Your task to perform on an android device: Open Chrome and go to settings Image 0: 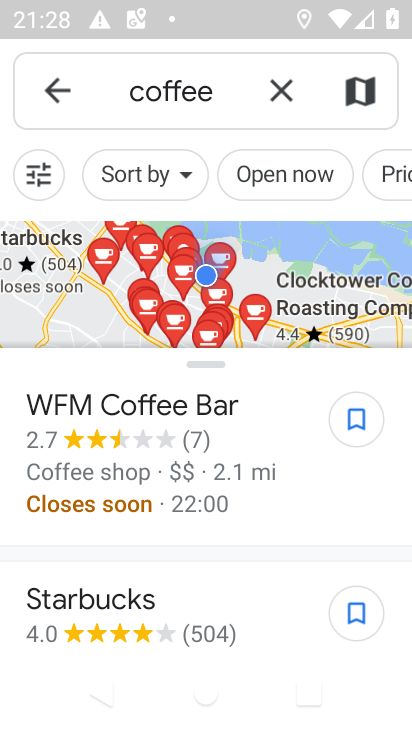
Step 0: press home button
Your task to perform on an android device: Open Chrome and go to settings Image 1: 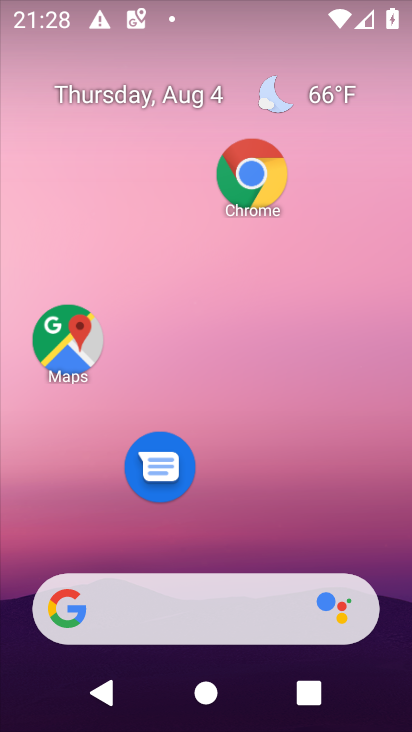
Step 1: drag from (228, 529) to (317, 60)
Your task to perform on an android device: Open Chrome and go to settings Image 2: 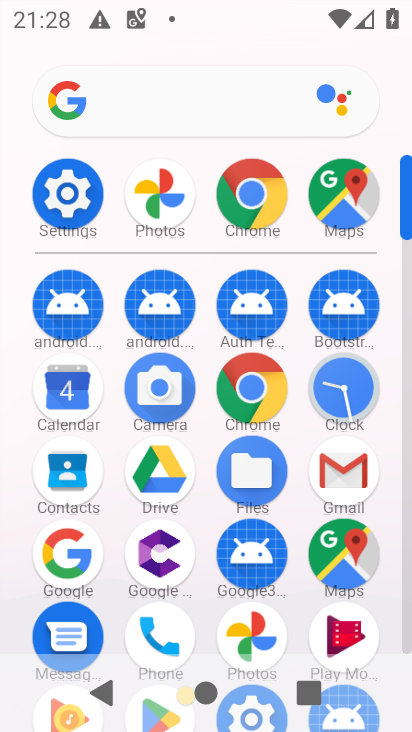
Step 2: click (255, 381)
Your task to perform on an android device: Open Chrome and go to settings Image 3: 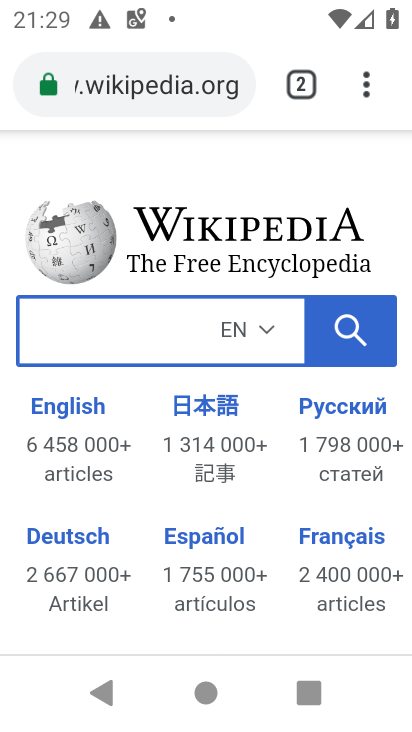
Step 3: click (162, 86)
Your task to perform on an android device: Open Chrome and go to settings Image 4: 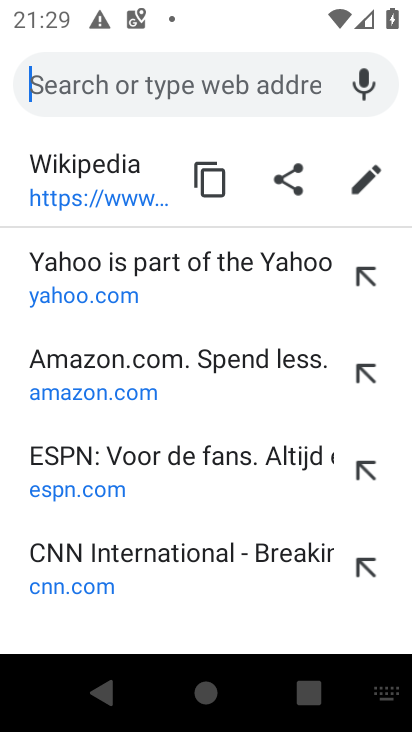
Step 4: task complete